Your task to perform on an android device: Do I have any events this weekend? Image 0: 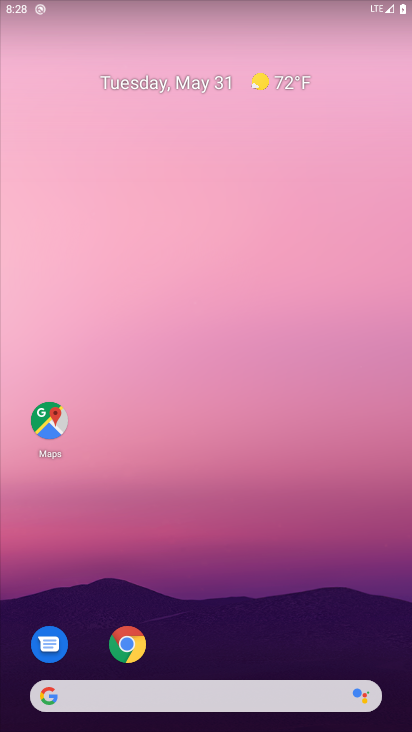
Step 0: drag from (237, 646) to (238, 172)
Your task to perform on an android device: Do I have any events this weekend? Image 1: 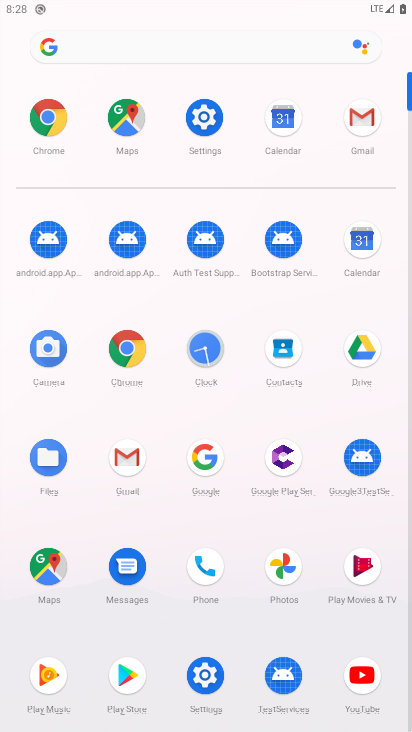
Step 1: click (361, 241)
Your task to perform on an android device: Do I have any events this weekend? Image 2: 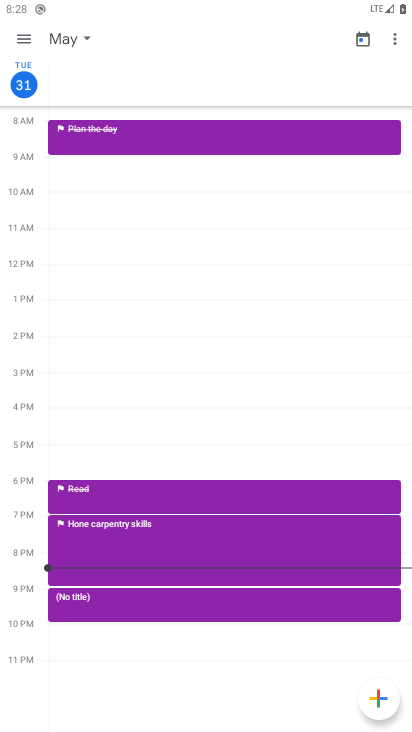
Step 2: click (24, 83)
Your task to perform on an android device: Do I have any events this weekend? Image 3: 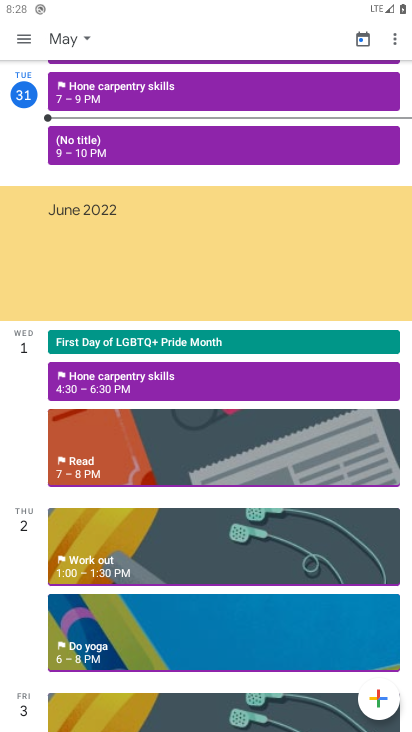
Step 3: drag from (21, 492) to (26, 156)
Your task to perform on an android device: Do I have any events this weekend? Image 4: 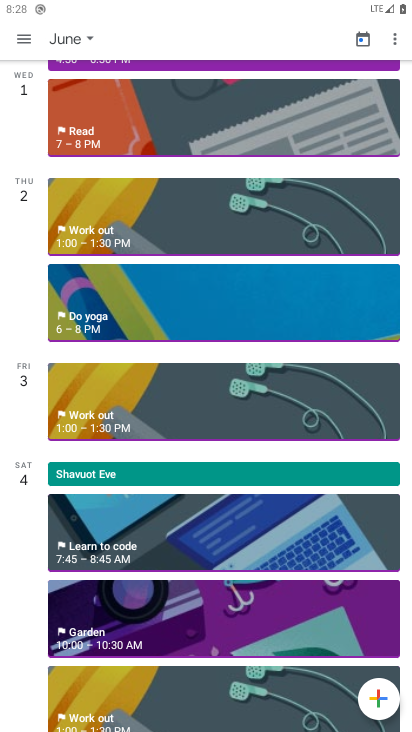
Step 4: drag from (32, 527) to (28, 390)
Your task to perform on an android device: Do I have any events this weekend? Image 5: 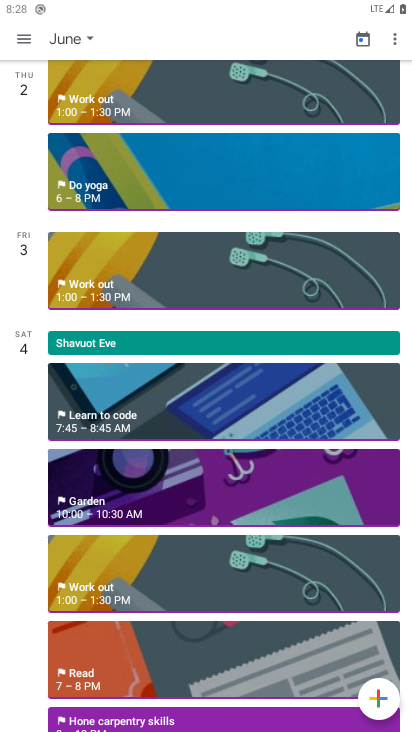
Step 5: click (22, 41)
Your task to perform on an android device: Do I have any events this weekend? Image 6: 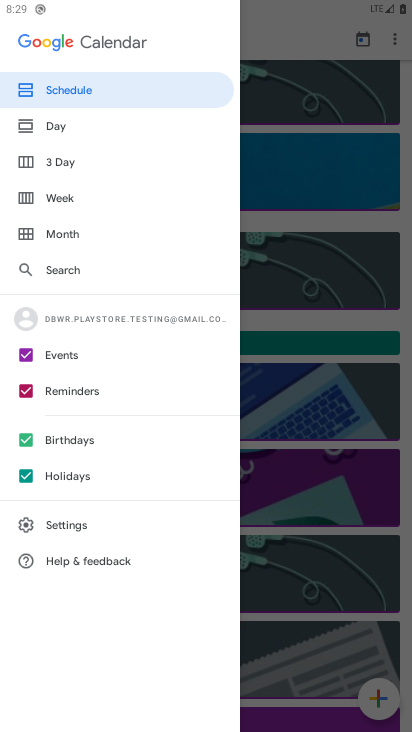
Step 6: click (30, 470)
Your task to perform on an android device: Do I have any events this weekend? Image 7: 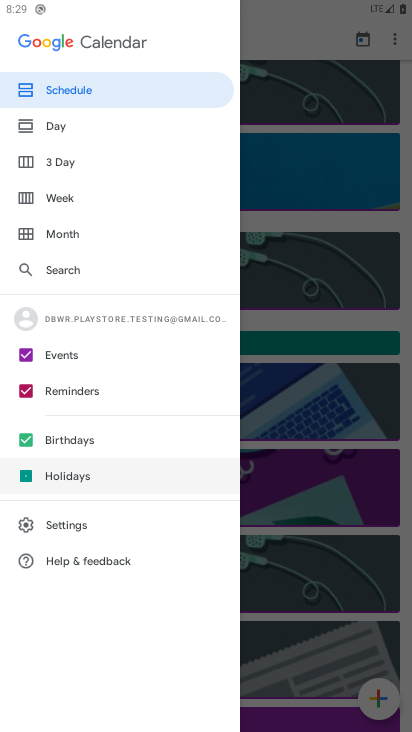
Step 7: click (28, 435)
Your task to perform on an android device: Do I have any events this weekend? Image 8: 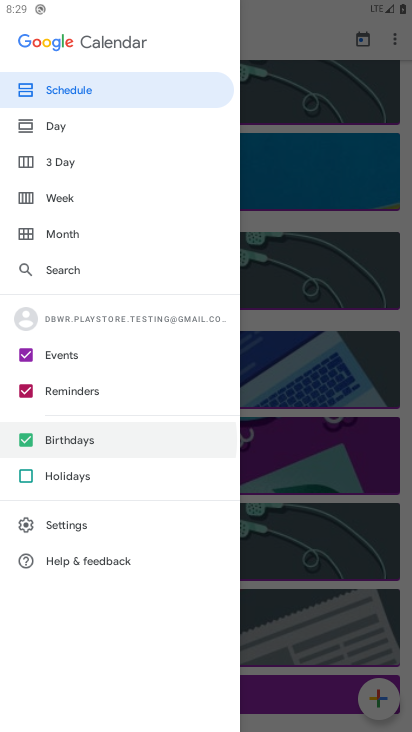
Step 8: click (25, 383)
Your task to perform on an android device: Do I have any events this weekend? Image 9: 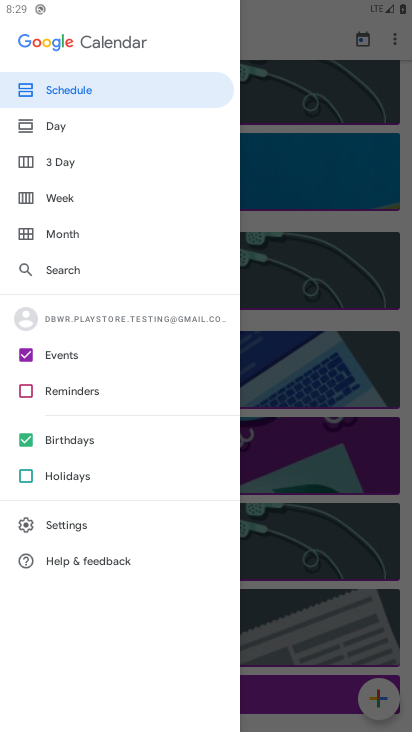
Step 9: click (25, 432)
Your task to perform on an android device: Do I have any events this weekend? Image 10: 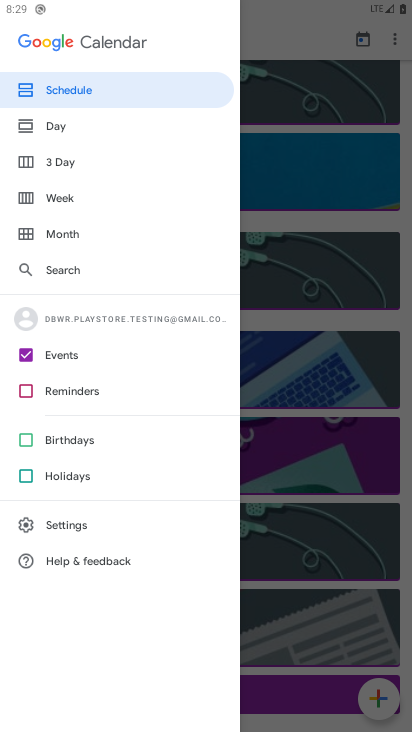
Step 10: click (47, 91)
Your task to perform on an android device: Do I have any events this weekend? Image 11: 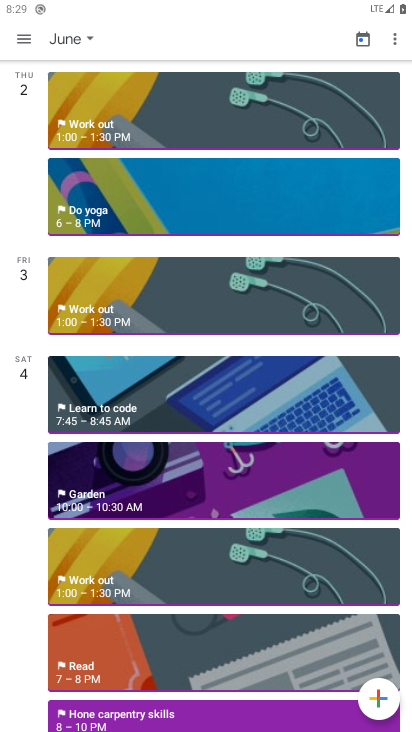
Step 11: task complete